Your task to perform on an android device: Open location settings Image 0: 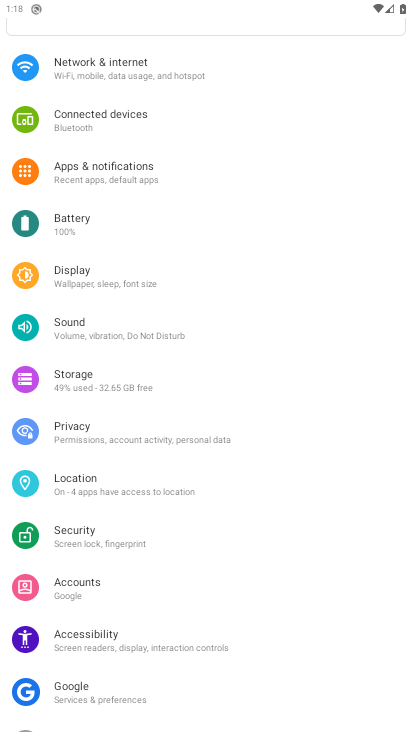
Step 0: press home button
Your task to perform on an android device: Open location settings Image 1: 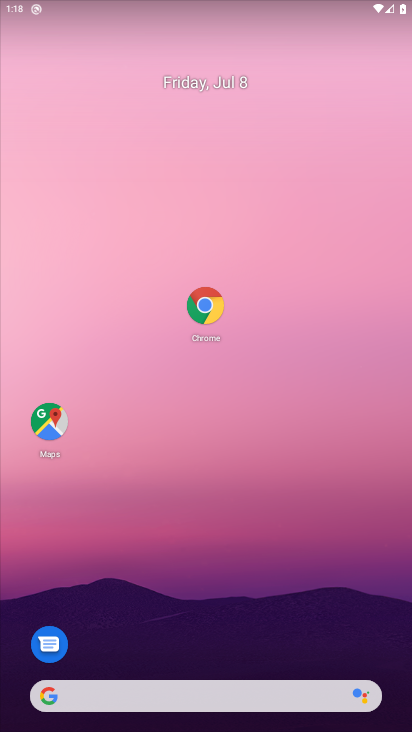
Step 1: drag from (153, 683) to (151, 271)
Your task to perform on an android device: Open location settings Image 2: 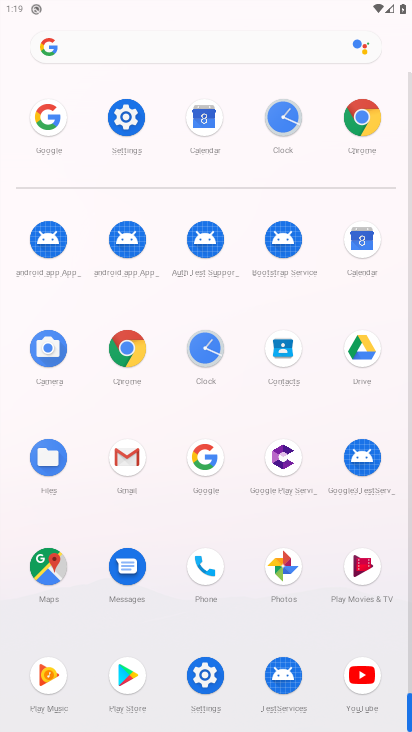
Step 2: click (192, 671)
Your task to perform on an android device: Open location settings Image 3: 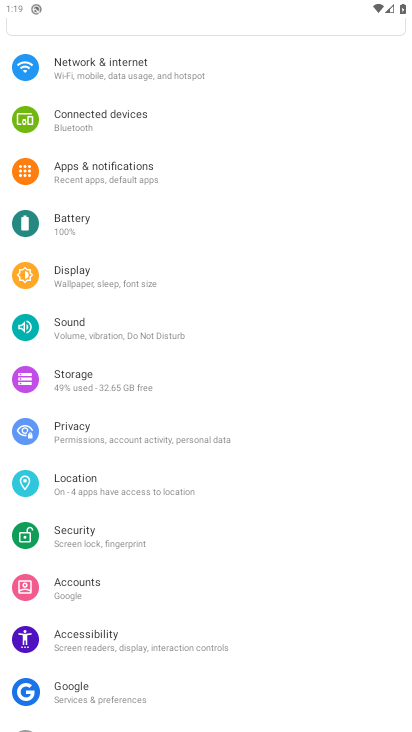
Step 3: click (83, 479)
Your task to perform on an android device: Open location settings Image 4: 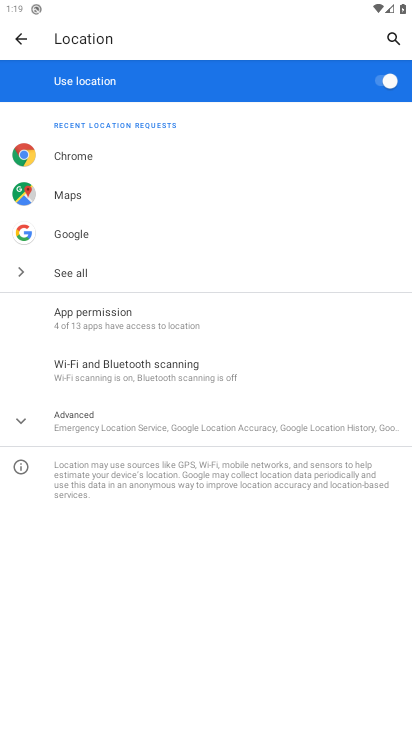
Step 4: click (73, 424)
Your task to perform on an android device: Open location settings Image 5: 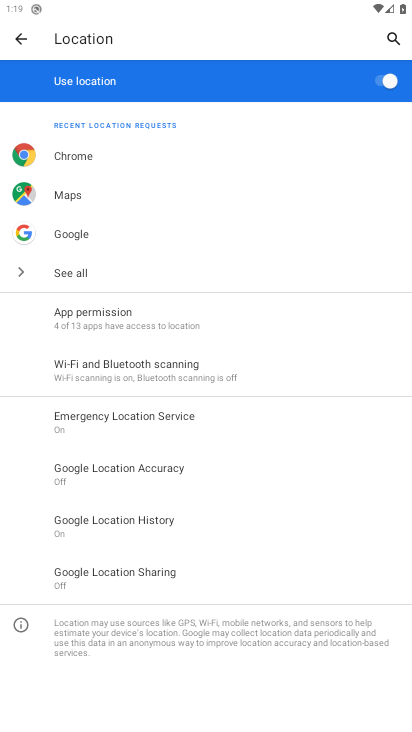
Step 5: task complete